Your task to perform on an android device: open a new tab in the chrome app Image 0: 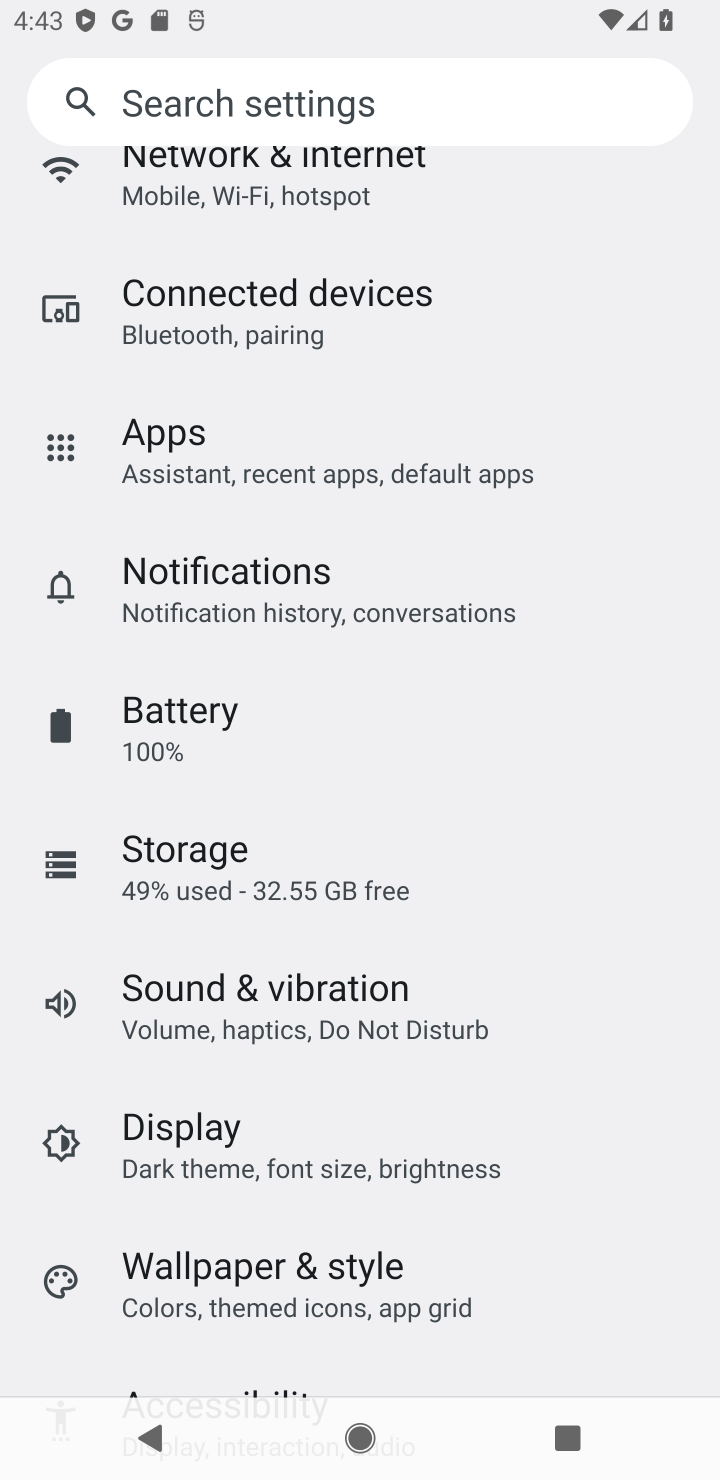
Step 0: press home button
Your task to perform on an android device: open a new tab in the chrome app Image 1: 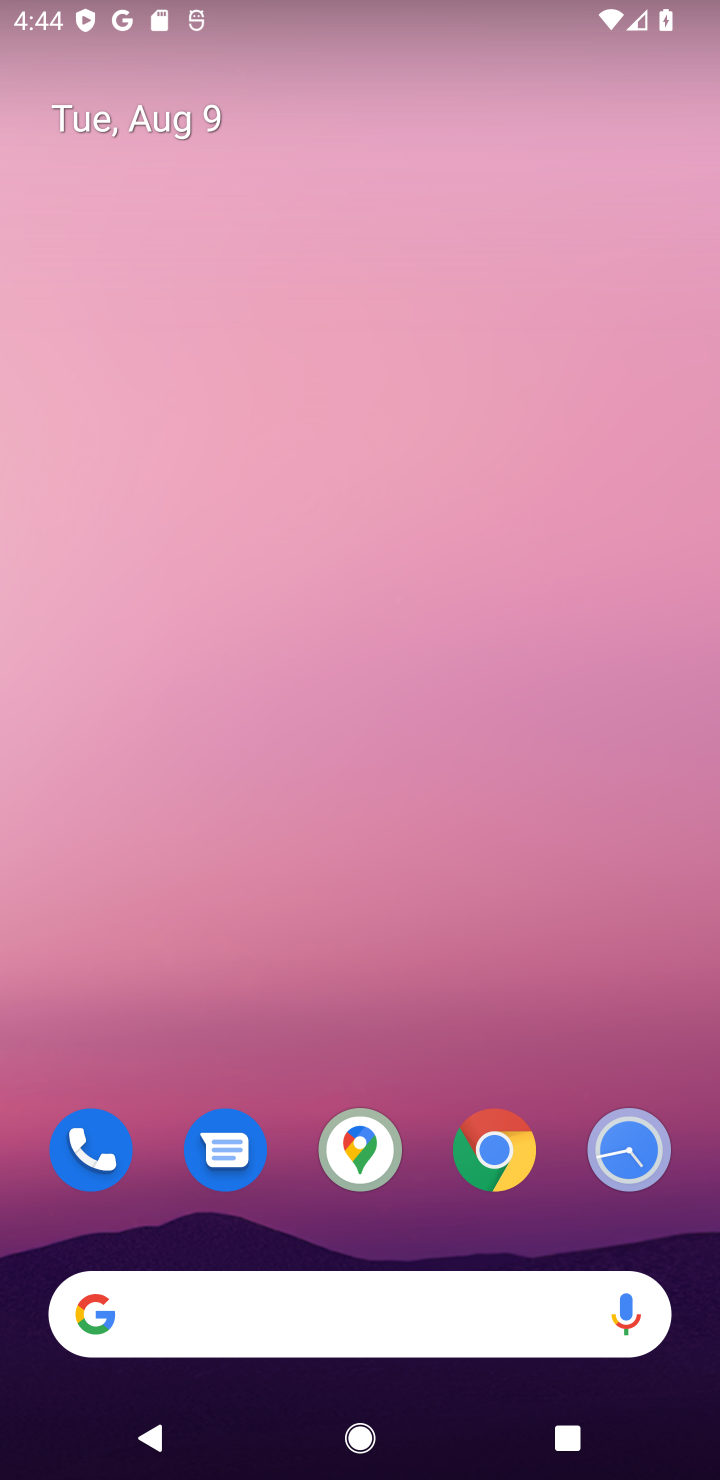
Step 1: drag from (389, 1238) to (335, 25)
Your task to perform on an android device: open a new tab in the chrome app Image 2: 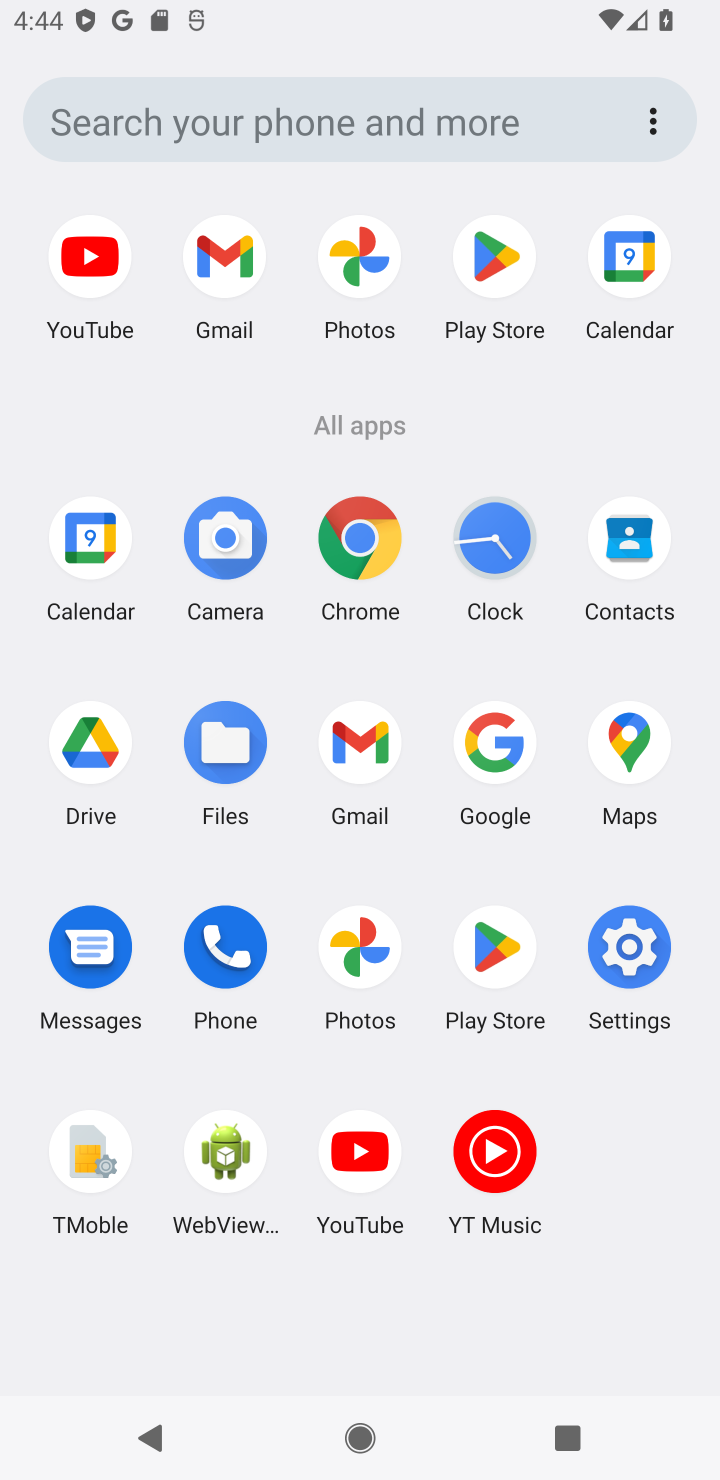
Step 2: click (364, 572)
Your task to perform on an android device: open a new tab in the chrome app Image 3: 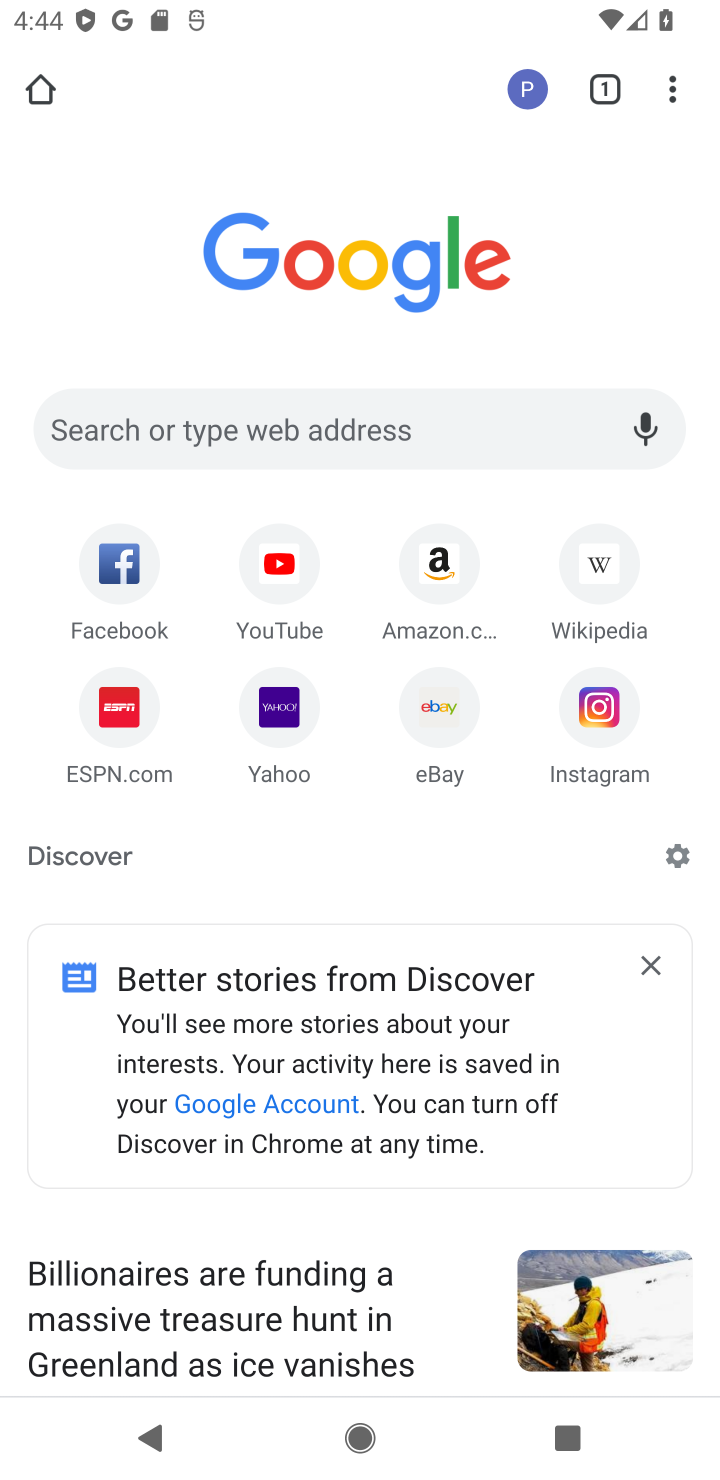
Step 3: click (604, 67)
Your task to perform on an android device: open a new tab in the chrome app Image 4: 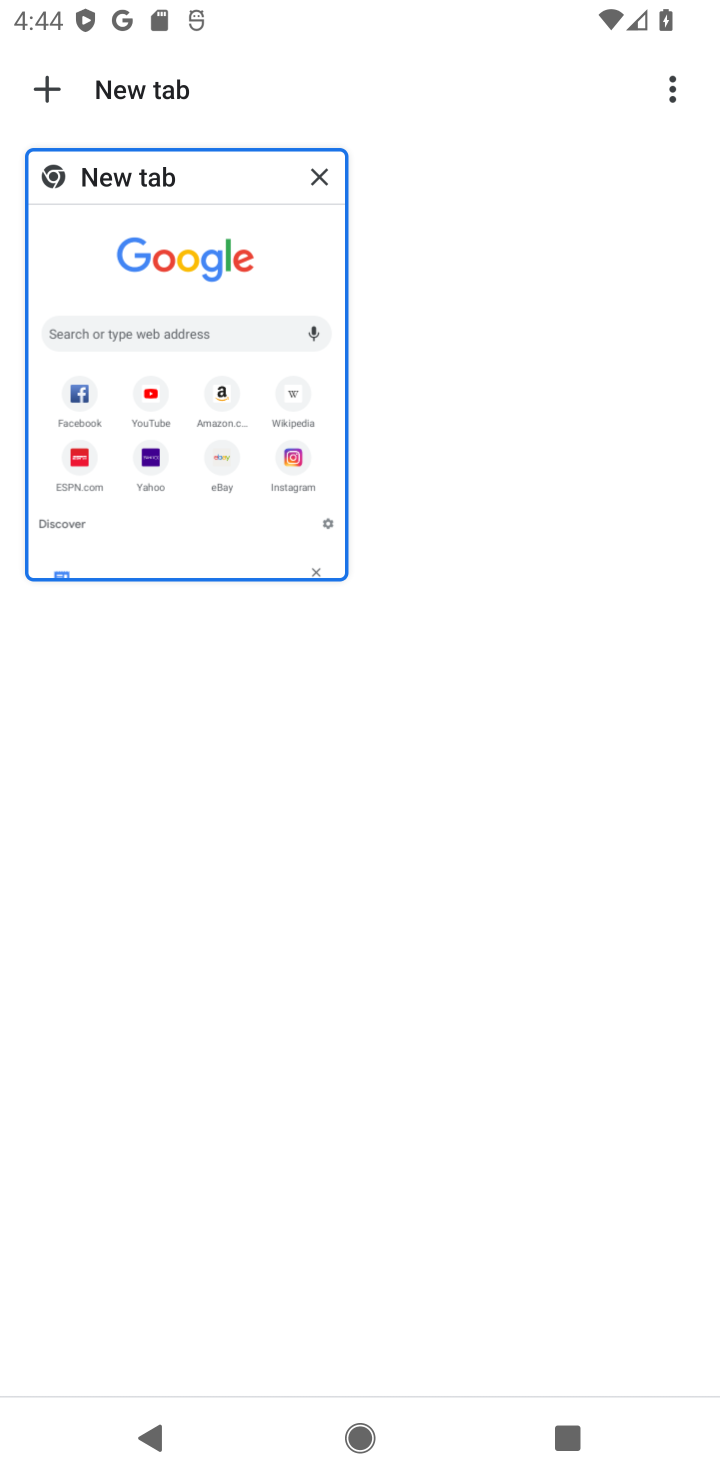
Step 4: click (56, 87)
Your task to perform on an android device: open a new tab in the chrome app Image 5: 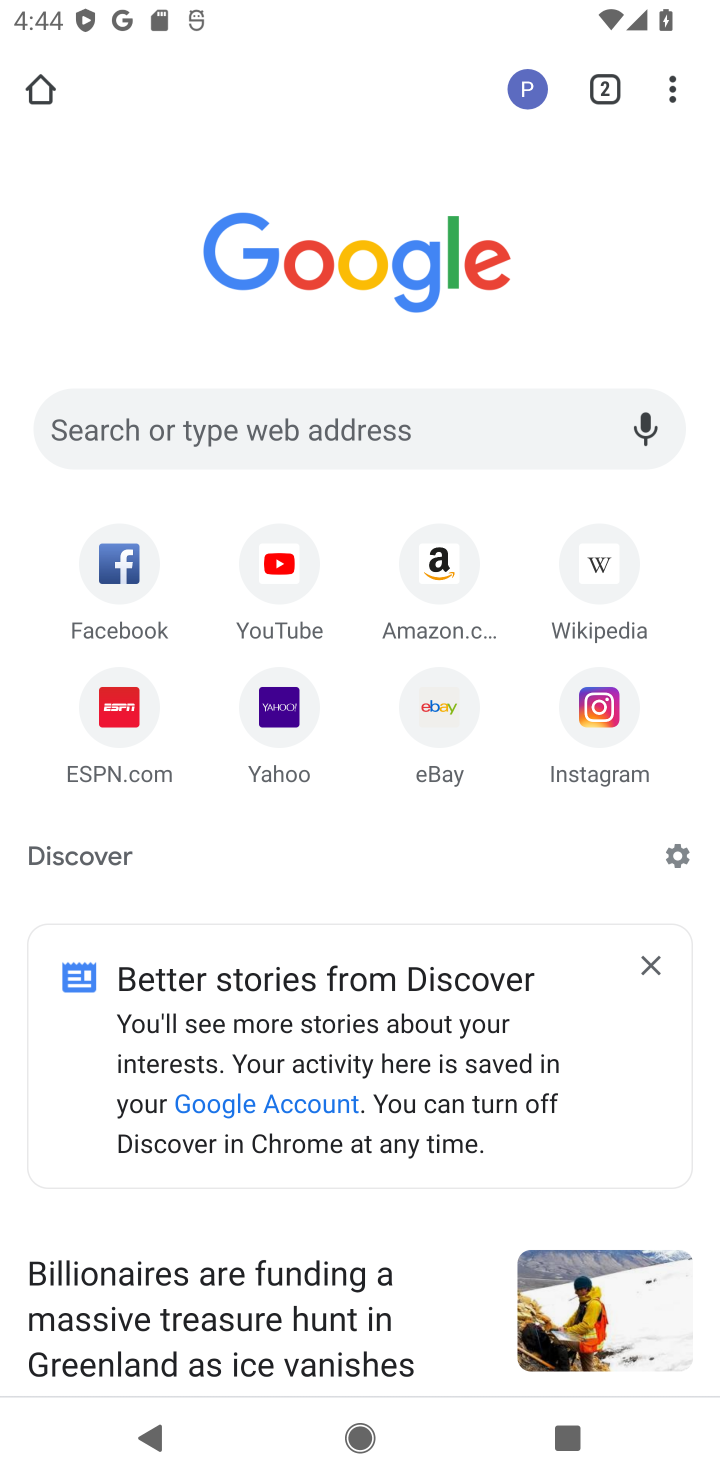
Step 5: task complete